Your task to perform on an android device: toggle javascript in the chrome app Image 0: 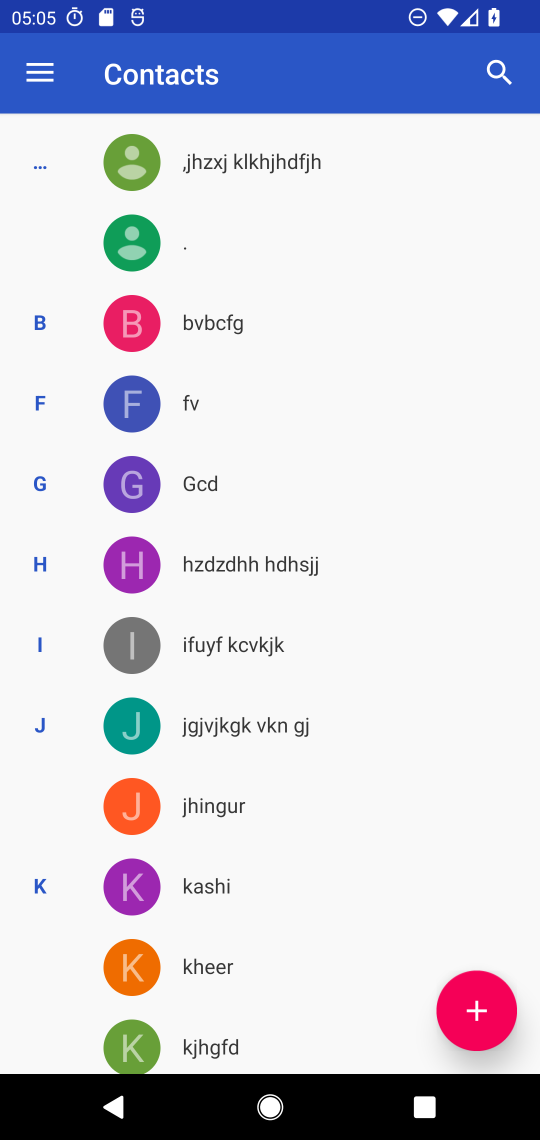
Step 0: press home button
Your task to perform on an android device: toggle javascript in the chrome app Image 1: 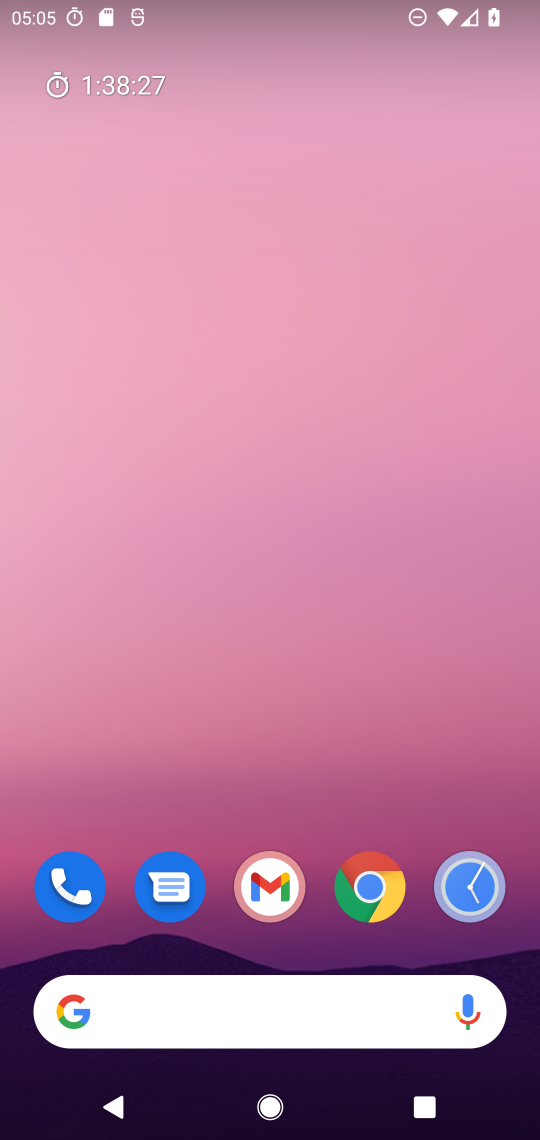
Step 1: drag from (417, 754) to (449, 310)
Your task to perform on an android device: toggle javascript in the chrome app Image 2: 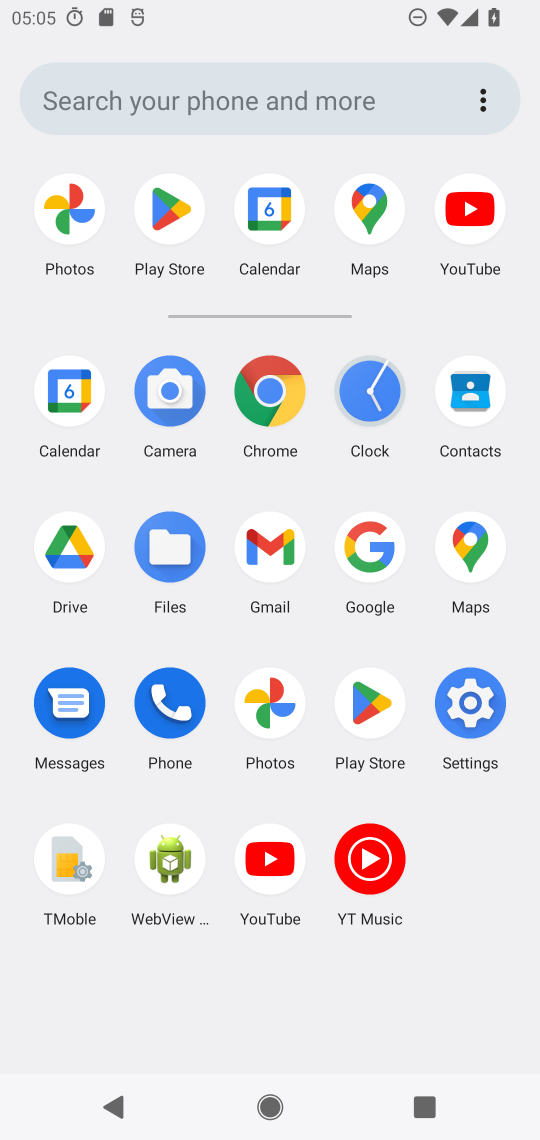
Step 2: click (266, 392)
Your task to perform on an android device: toggle javascript in the chrome app Image 3: 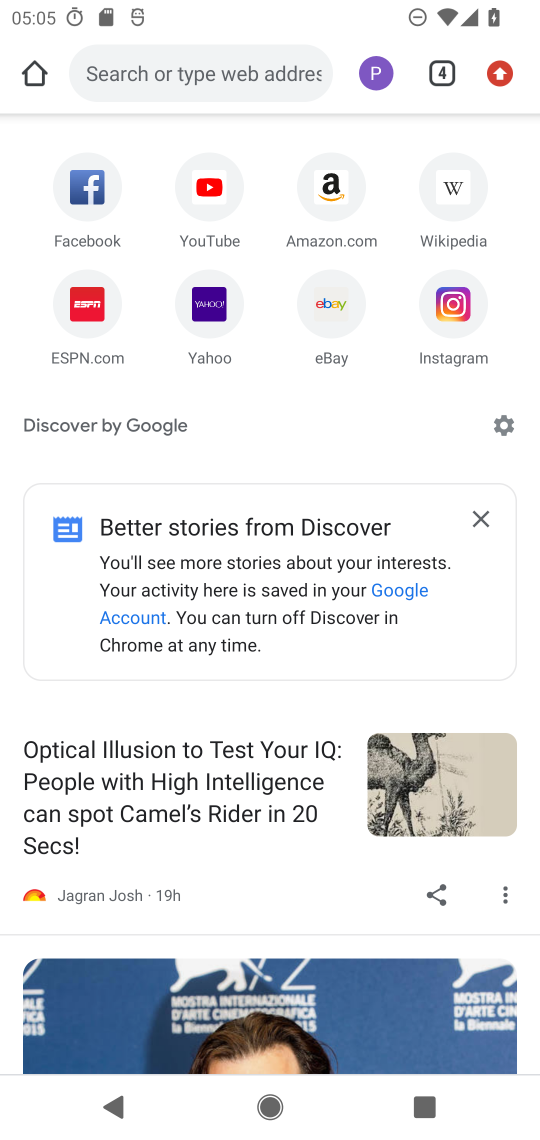
Step 3: click (502, 67)
Your task to perform on an android device: toggle javascript in the chrome app Image 4: 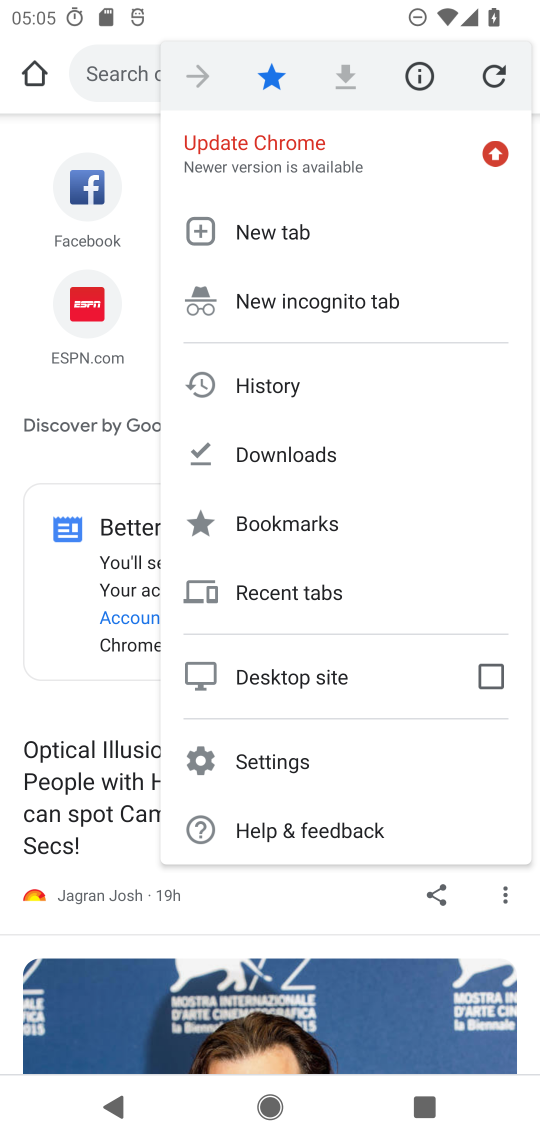
Step 4: click (393, 766)
Your task to perform on an android device: toggle javascript in the chrome app Image 5: 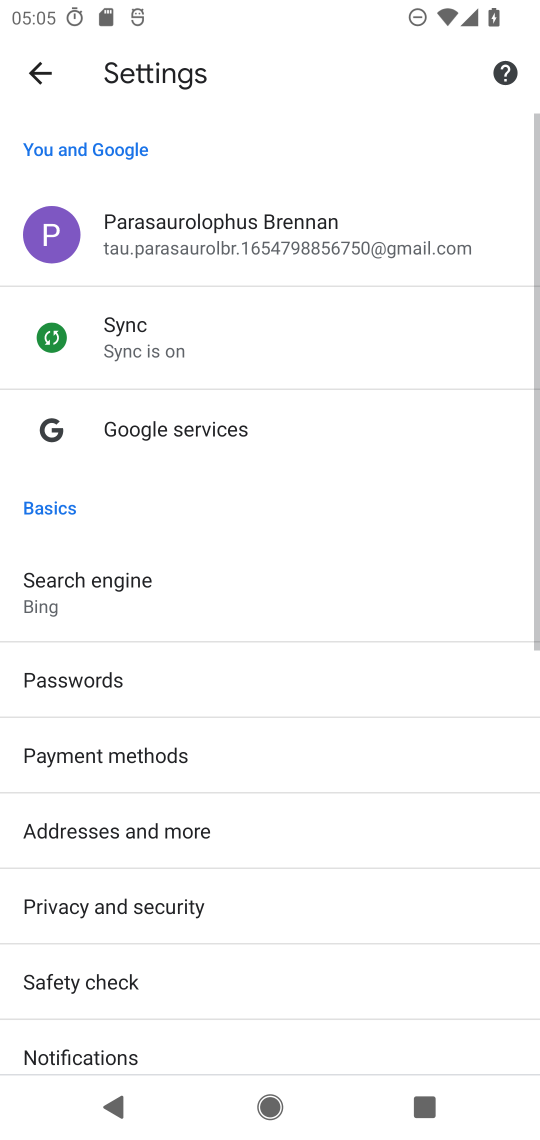
Step 5: drag from (394, 740) to (398, 632)
Your task to perform on an android device: toggle javascript in the chrome app Image 6: 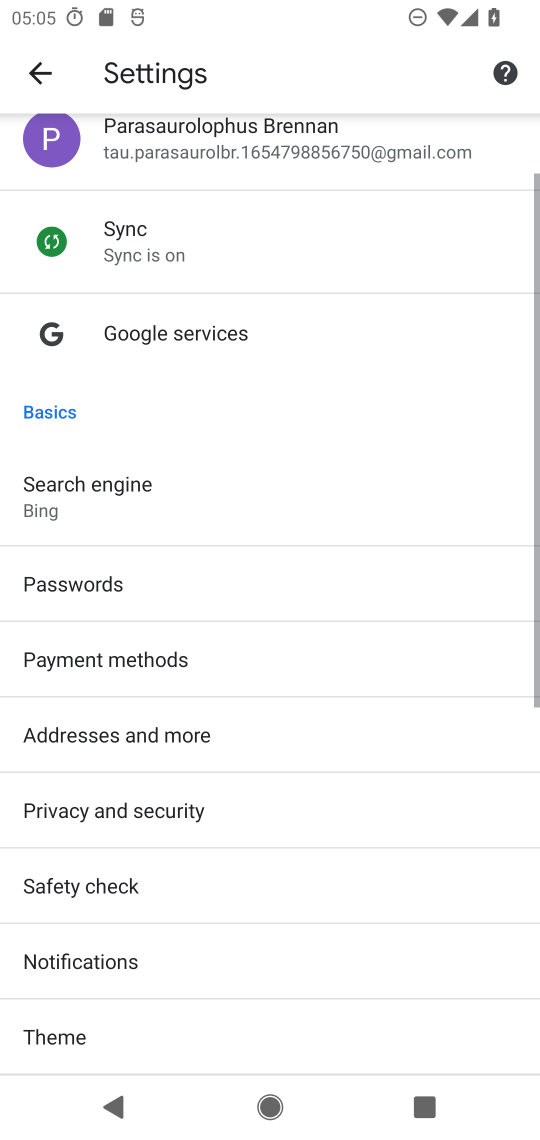
Step 6: drag from (392, 792) to (399, 613)
Your task to perform on an android device: toggle javascript in the chrome app Image 7: 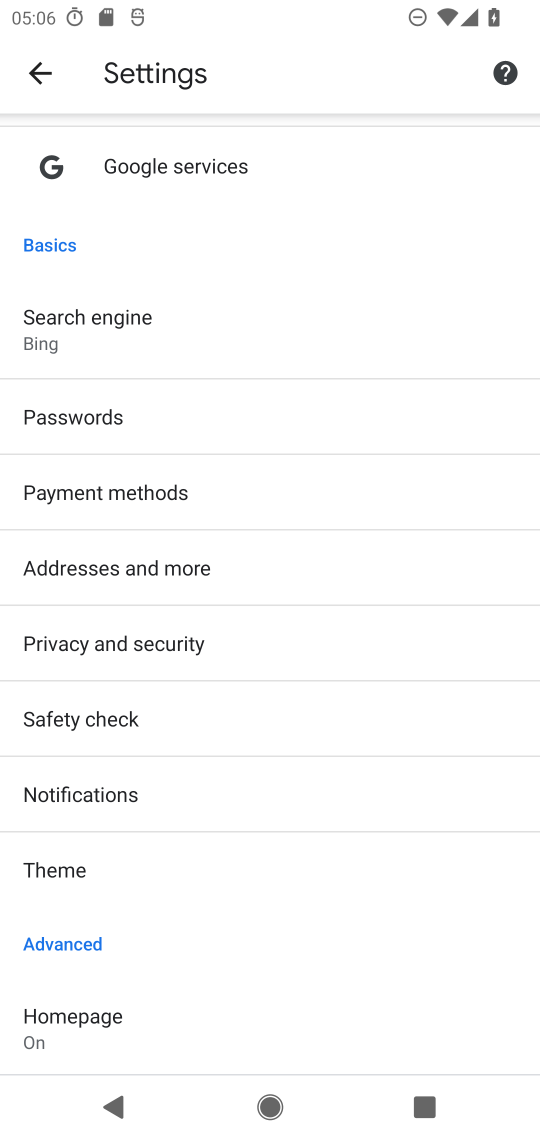
Step 7: drag from (376, 726) to (384, 590)
Your task to perform on an android device: toggle javascript in the chrome app Image 8: 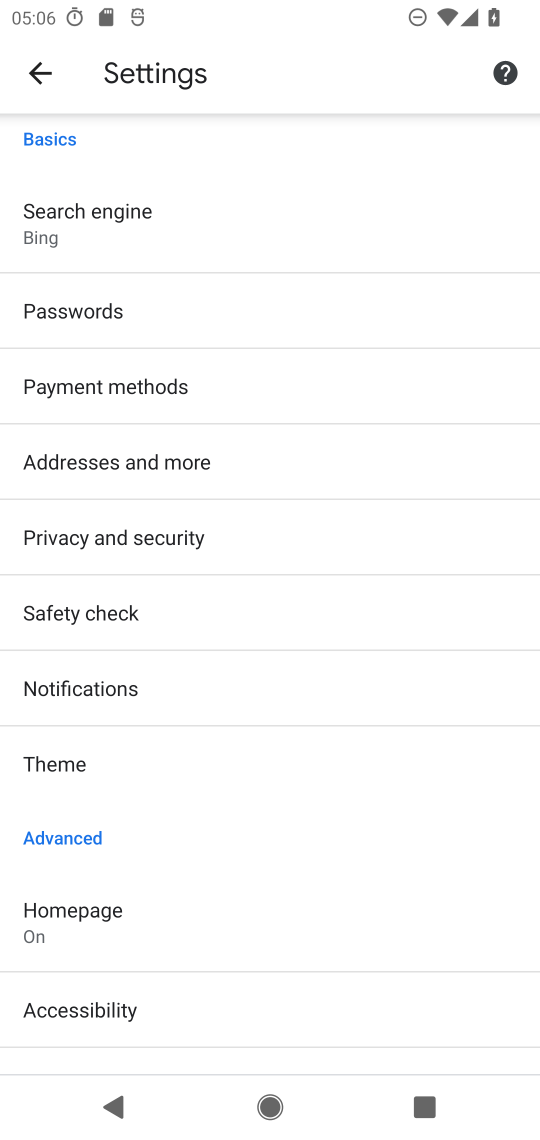
Step 8: drag from (337, 791) to (340, 581)
Your task to perform on an android device: toggle javascript in the chrome app Image 9: 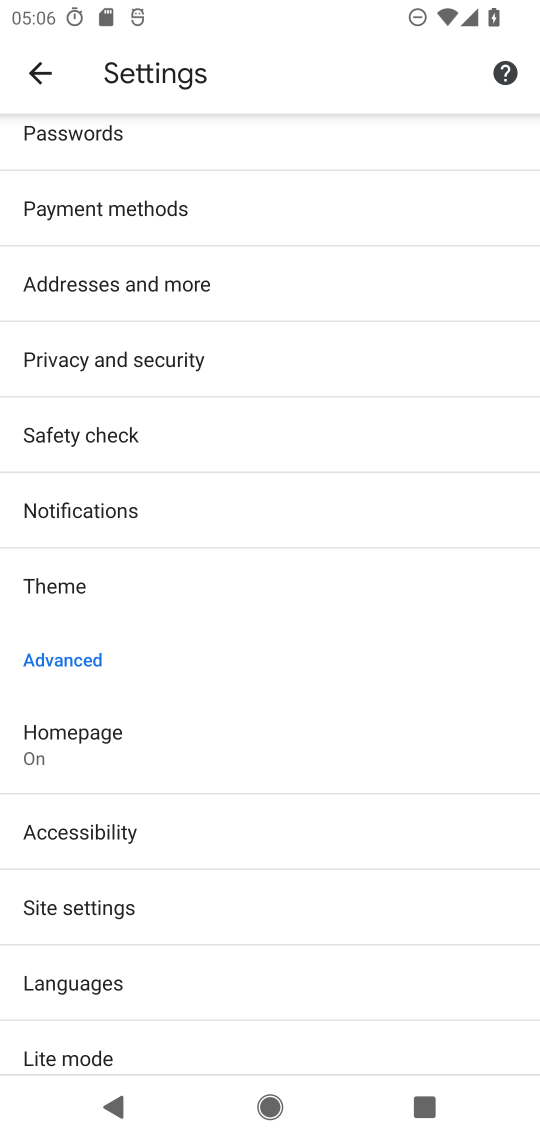
Step 9: drag from (298, 849) to (339, 606)
Your task to perform on an android device: toggle javascript in the chrome app Image 10: 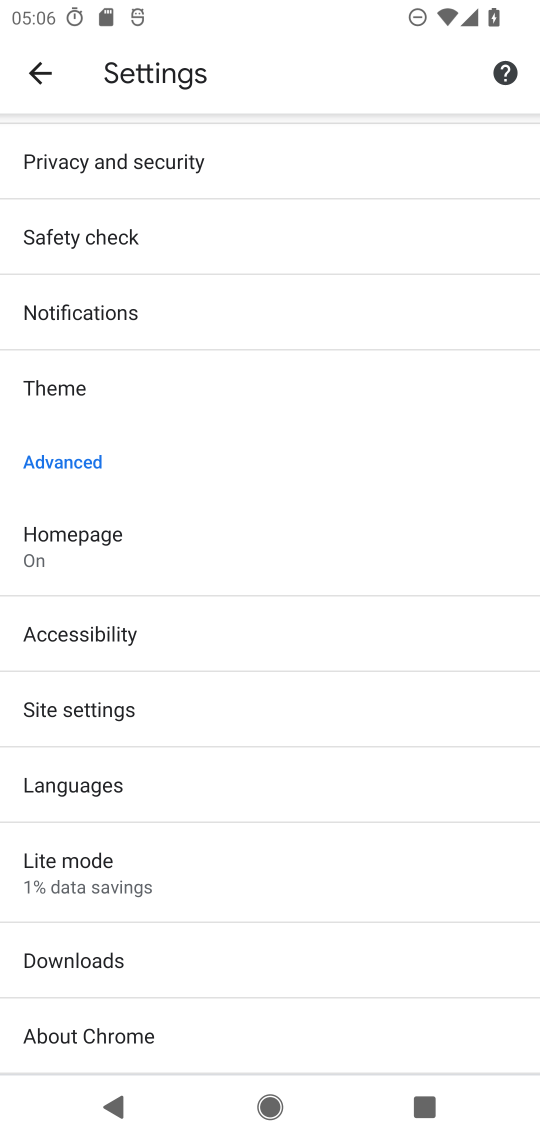
Step 10: click (337, 686)
Your task to perform on an android device: toggle javascript in the chrome app Image 11: 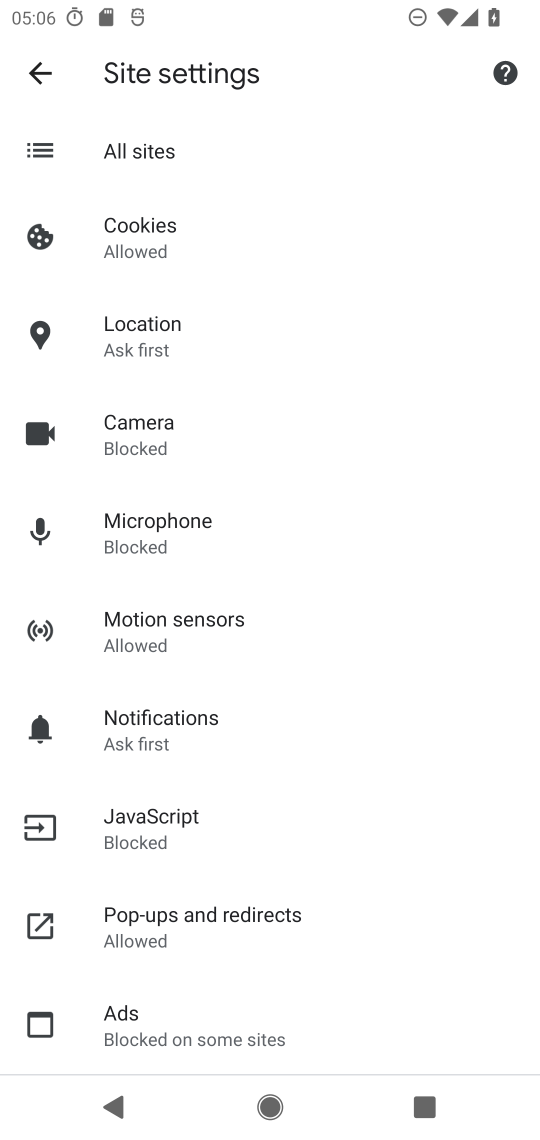
Step 11: click (203, 819)
Your task to perform on an android device: toggle javascript in the chrome app Image 12: 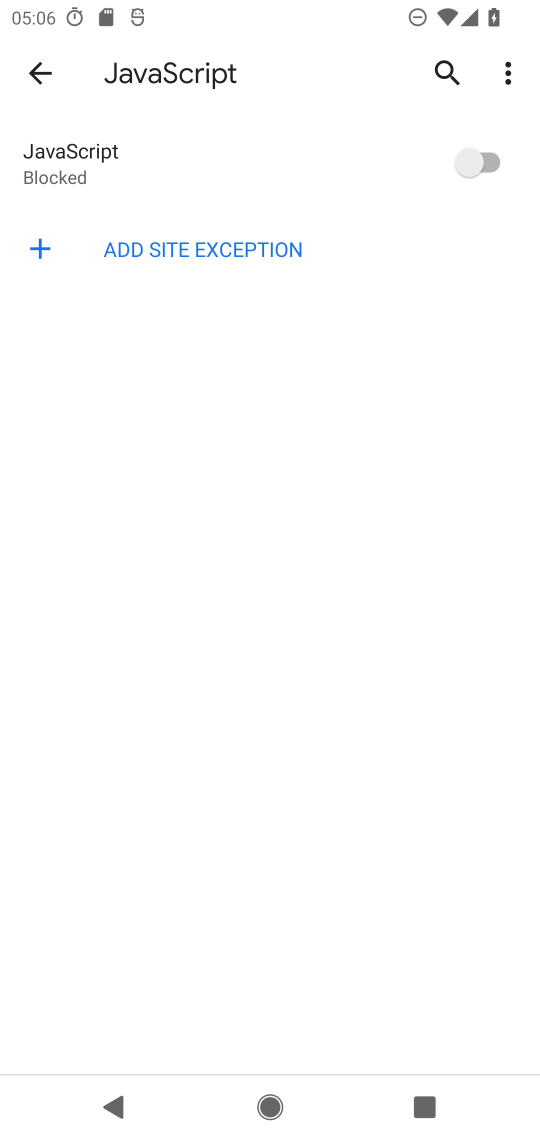
Step 12: click (474, 163)
Your task to perform on an android device: toggle javascript in the chrome app Image 13: 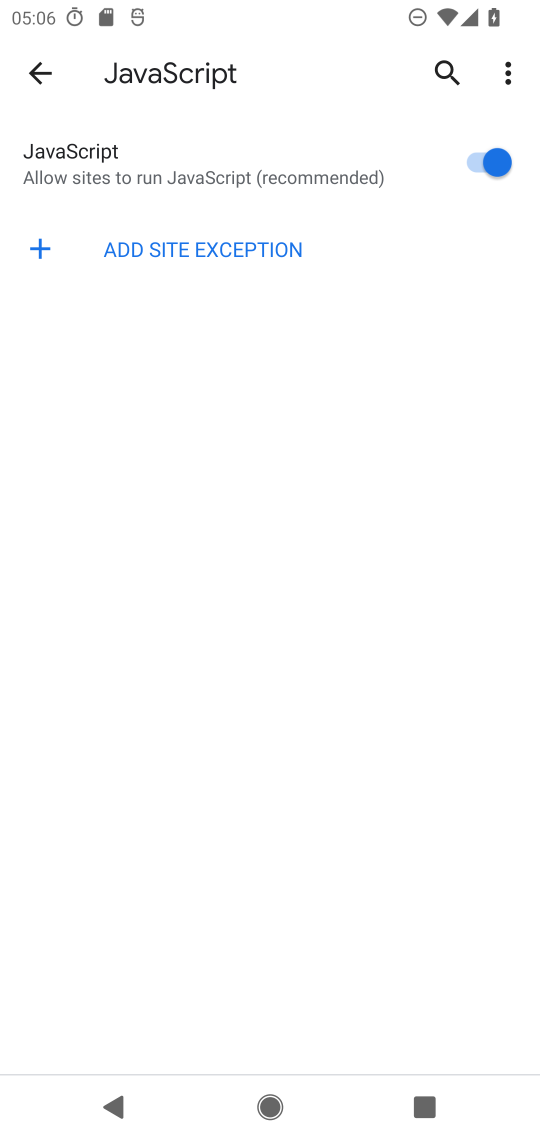
Step 13: task complete